Your task to perform on an android device: remove spam from my inbox in the gmail app Image 0: 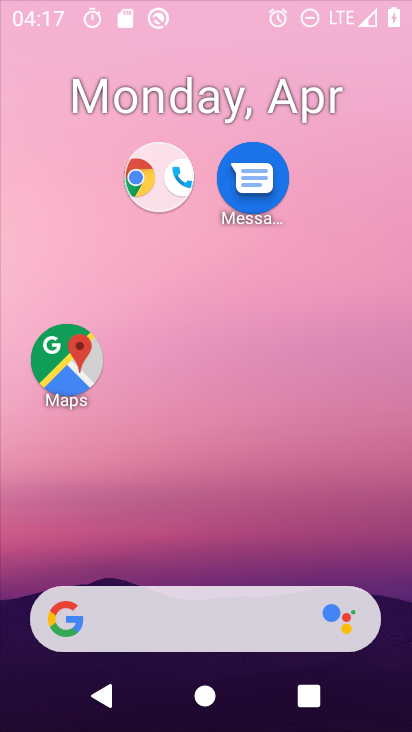
Step 0: drag from (286, 467) to (306, 2)
Your task to perform on an android device: remove spam from my inbox in the gmail app Image 1: 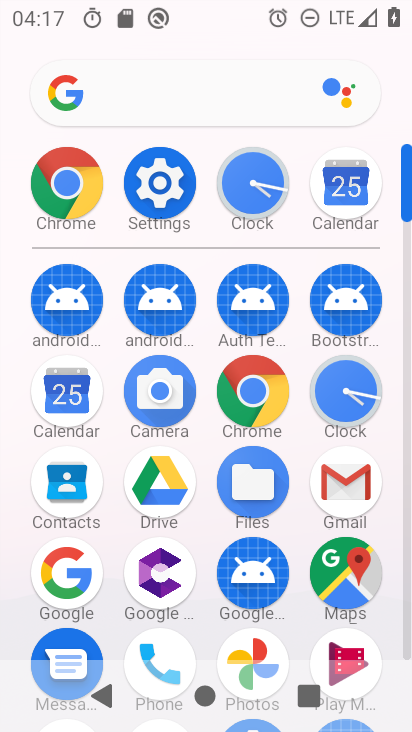
Step 1: click (351, 480)
Your task to perform on an android device: remove spam from my inbox in the gmail app Image 2: 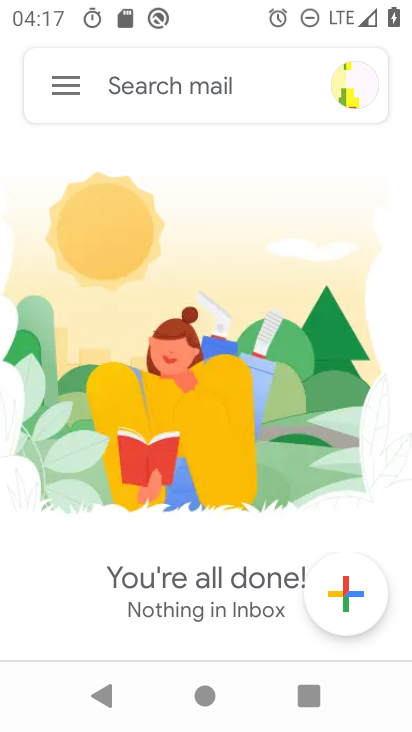
Step 2: click (60, 82)
Your task to perform on an android device: remove spam from my inbox in the gmail app Image 3: 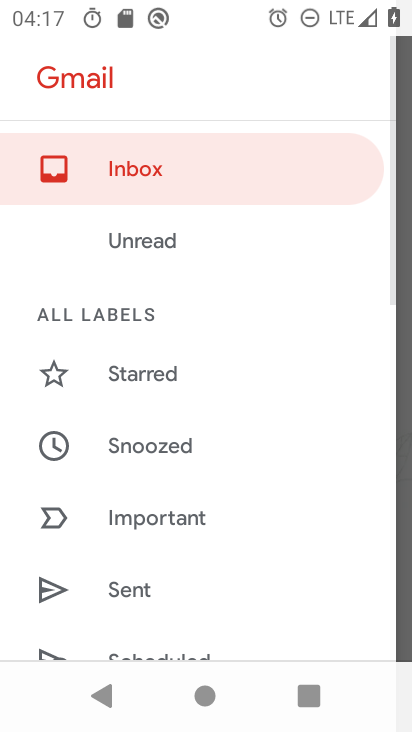
Step 3: task complete